Your task to perform on an android device: turn on the 12-hour format for clock Image 0: 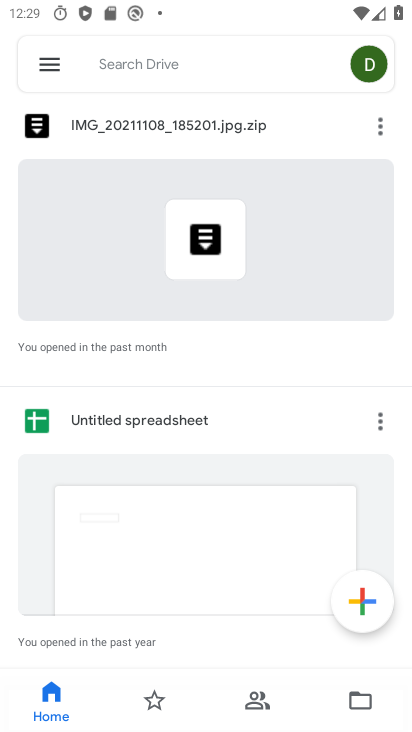
Step 0: press back button
Your task to perform on an android device: turn on the 12-hour format for clock Image 1: 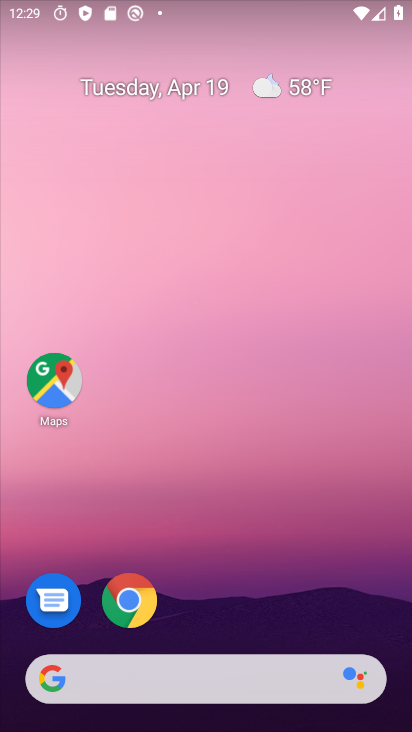
Step 1: drag from (337, 711) to (293, 386)
Your task to perform on an android device: turn on the 12-hour format for clock Image 2: 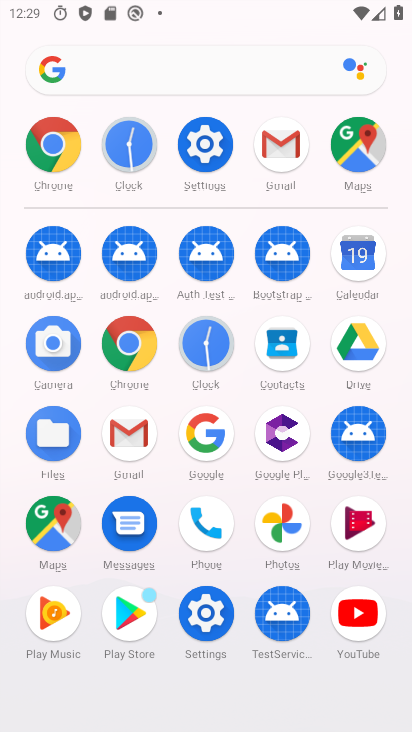
Step 2: click (143, 148)
Your task to perform on an android device: turn on the 12-hour format for clock Image 3: 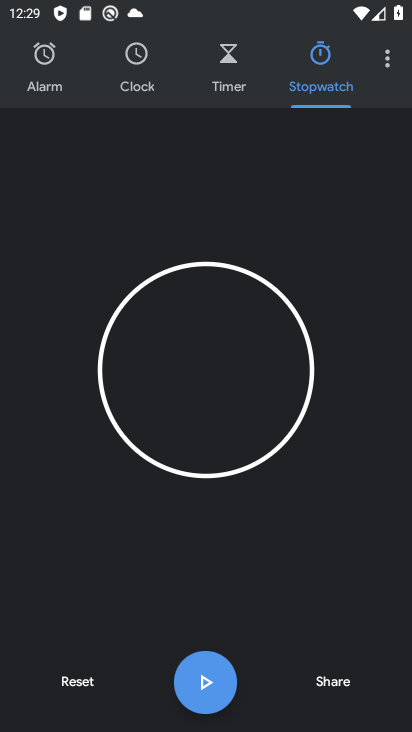
Step 3: click (372, 55)
Your task to perform on an android device: turn on the 12-hour format for clock Image 4: 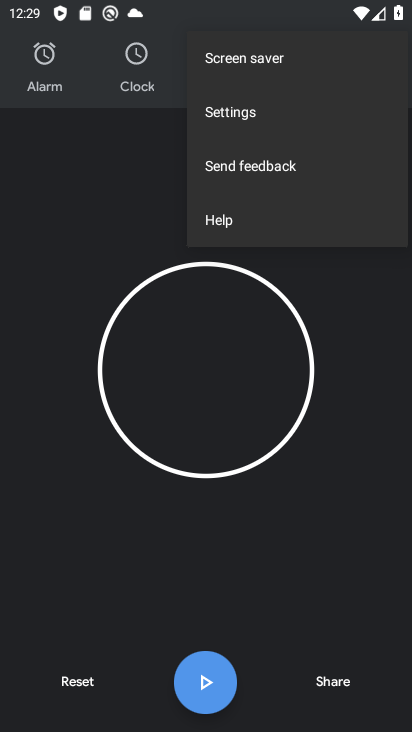
Step 4: click (251, 124)
Your task to perform on an android device: turn on the 12-hour format for clock Image 5: 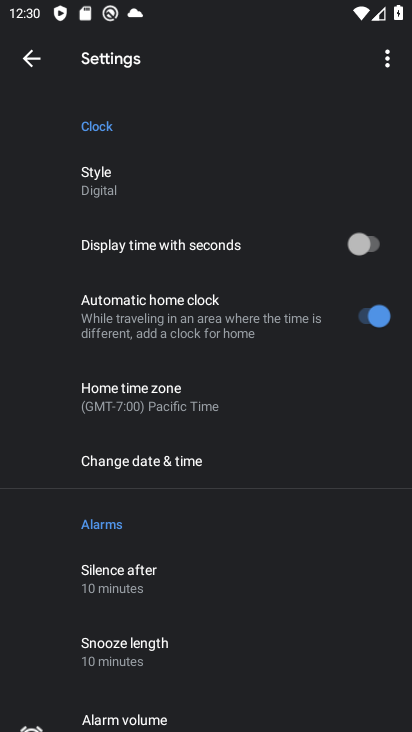
Step 5: drag from (148, 582) to (200, 402)
Your task to perform on an android device: turn on the 12-hour format for clock Image 6: 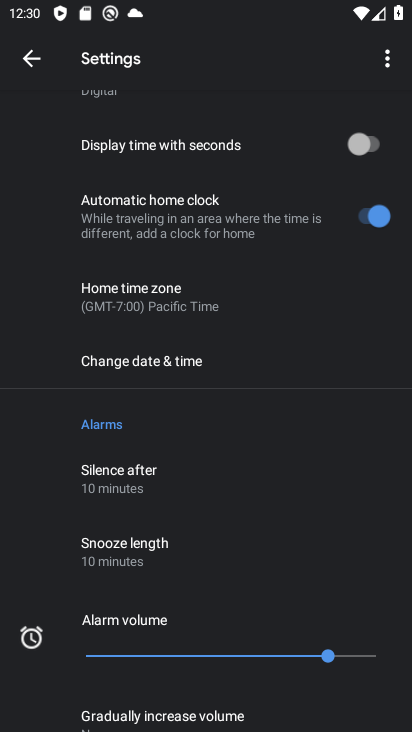
Step 6: click (156, 358)
Your task to perform on an android device: turn on the 12-hour format for clock Image 7: 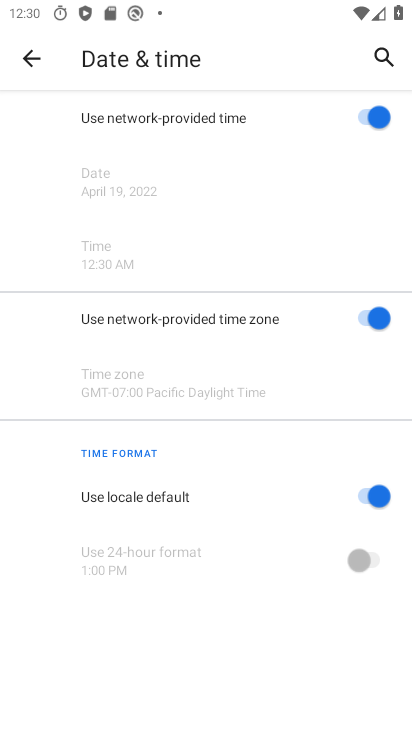
Step 7: click (354, 505)
Your task to perform on an android device: turn on the 12-hour format for clock Image 8: 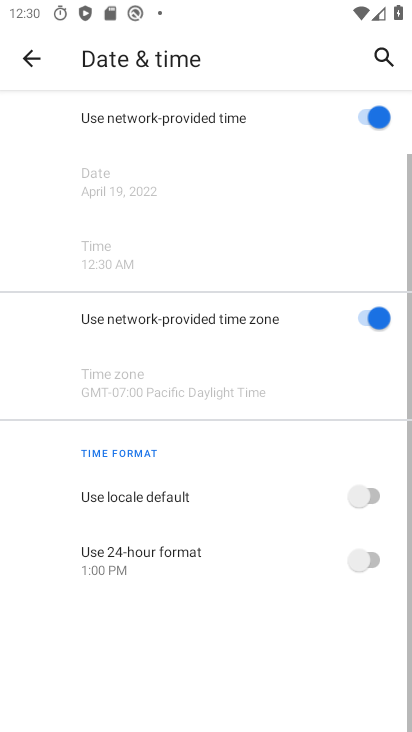
Step 8: click (357, 555)
Your task to perform on an android device: turn on the 12-hour format for clock Image 9: 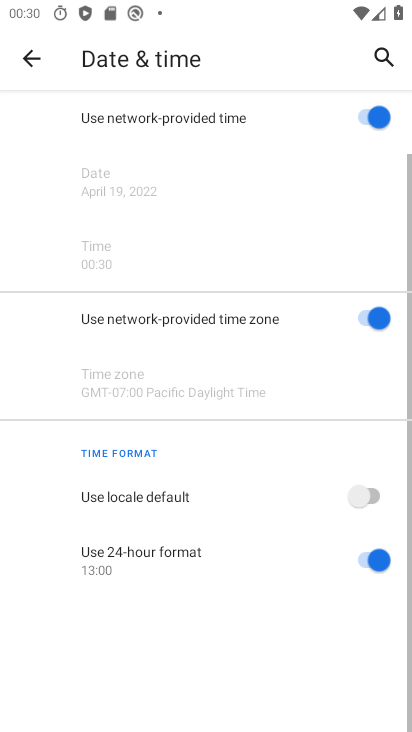
Step 9: click (357, 555)
Your task to perform on an android device: turn on the 12-hour format for clock Image 10: 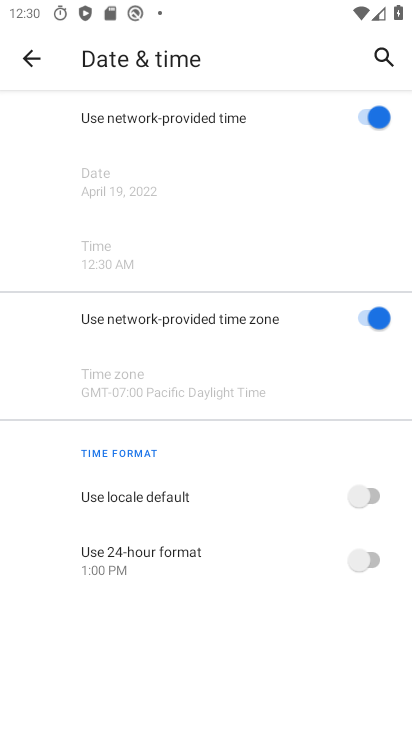
Step 10: task complete